Your task to perform on an android device: Open privacy settings Image 0: 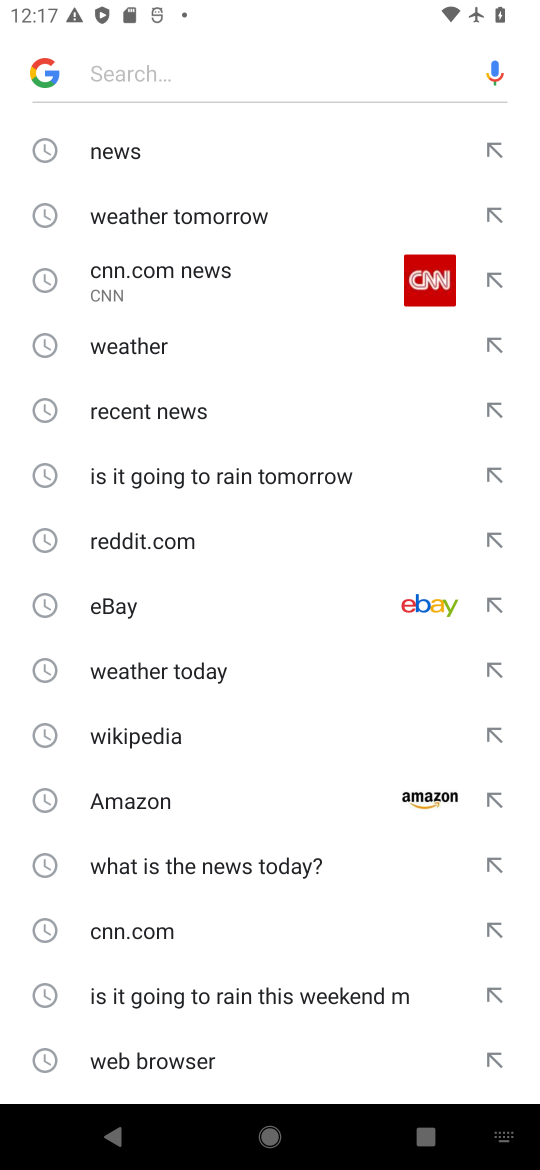
Step 0: press home button
Your task to perform on an android device: Open privacy settings Image 1: 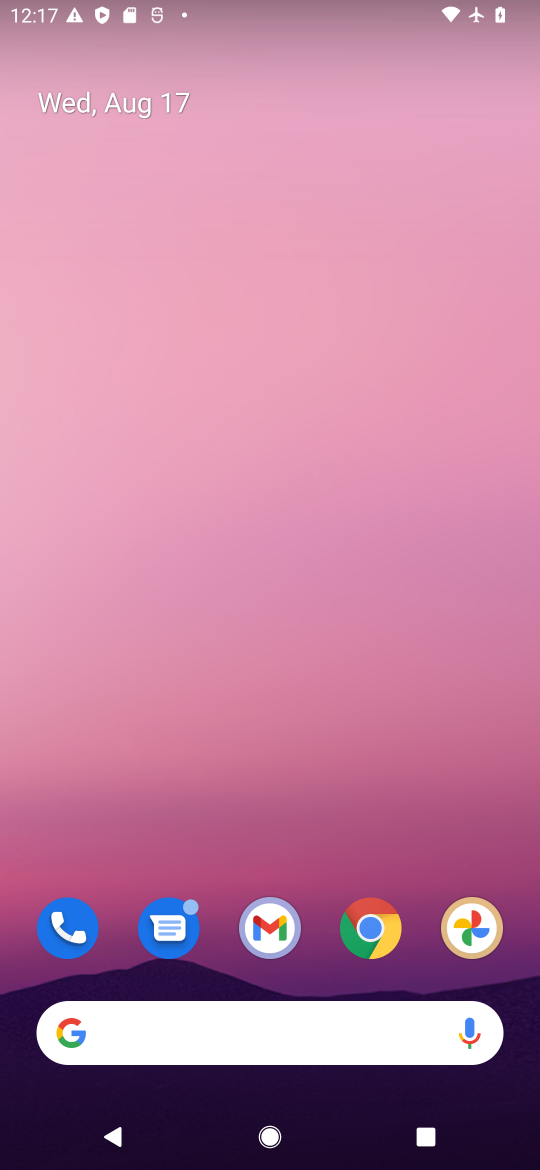
Step 1: drag from (251, 843) to (307, 132)
Your task to perform on an android device: Open privacy settings Image 2: 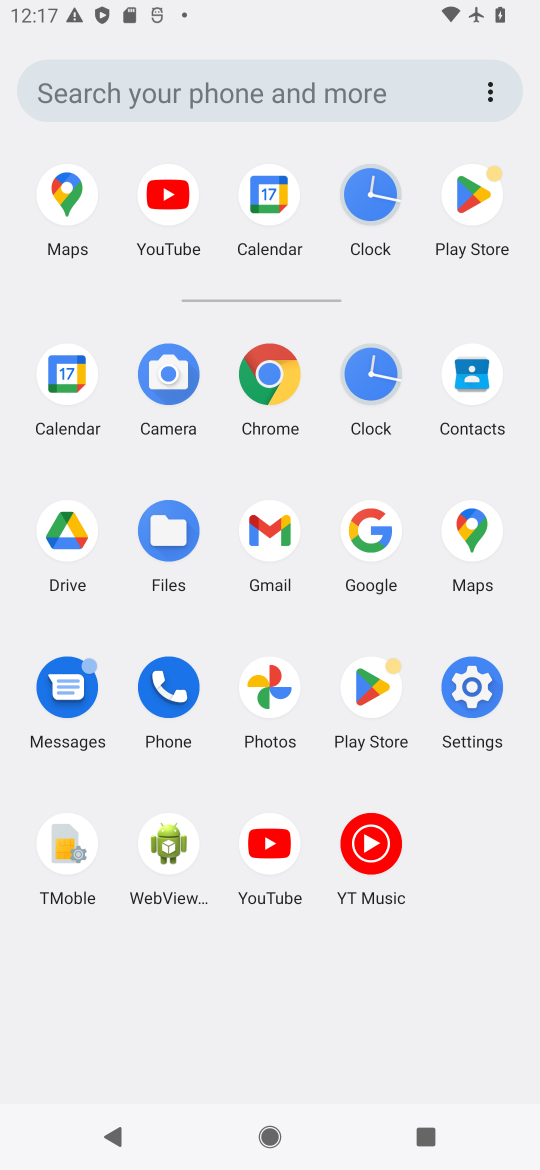
Step 2: click (474, 700)
Your task to perform on an android device: Open privacy settings Image 3: 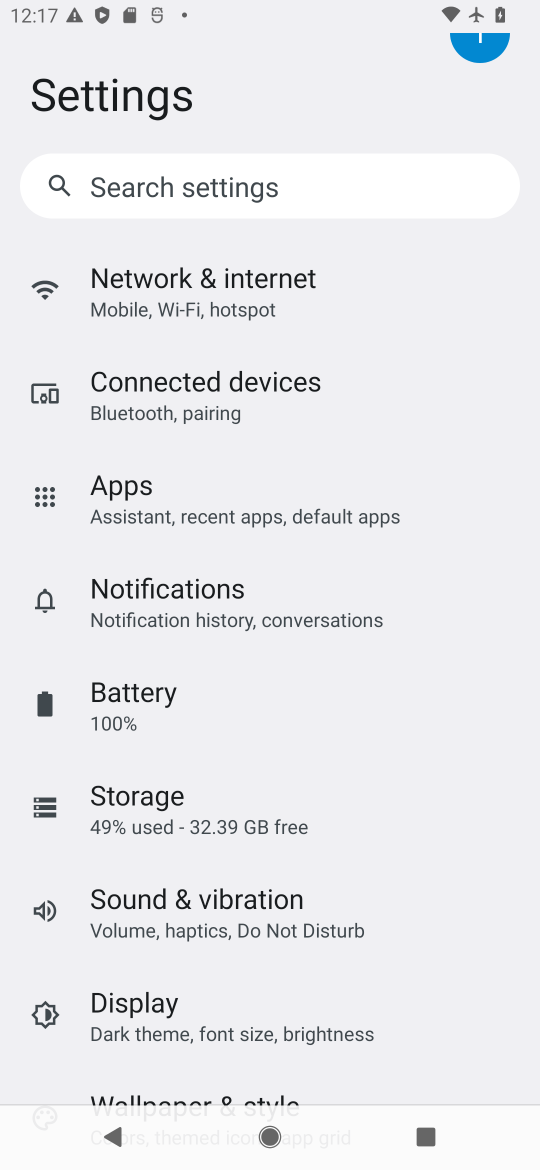
Step 3: drag from (249, 965) to (255, 428)
Your task to perform on an android device: Open privacy settings Image 4: 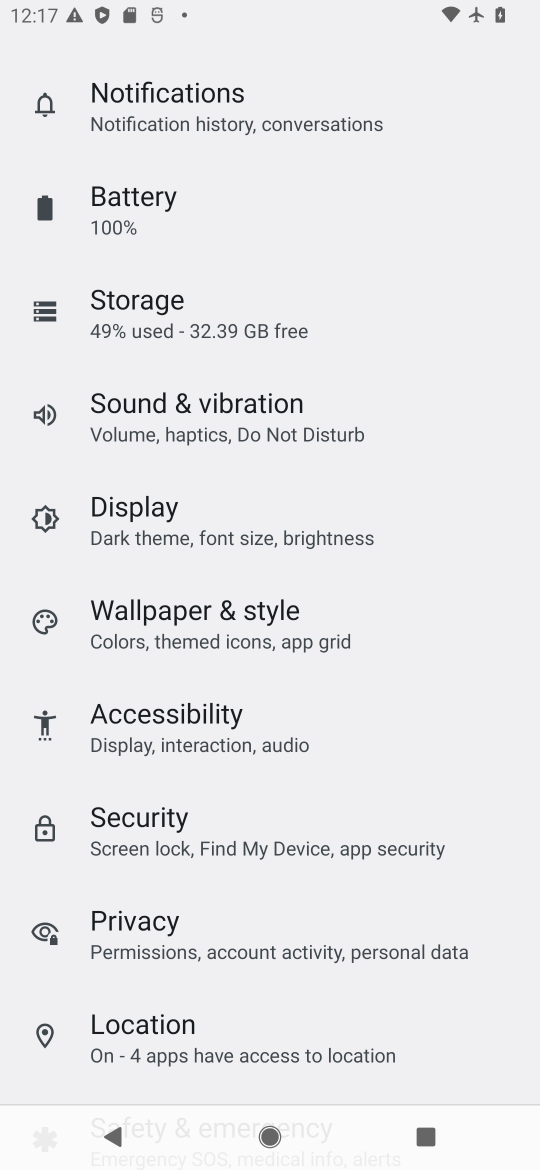
Step 4: click (198, 916)
Your task to perform on an android device: Open privacy settings Image 5: 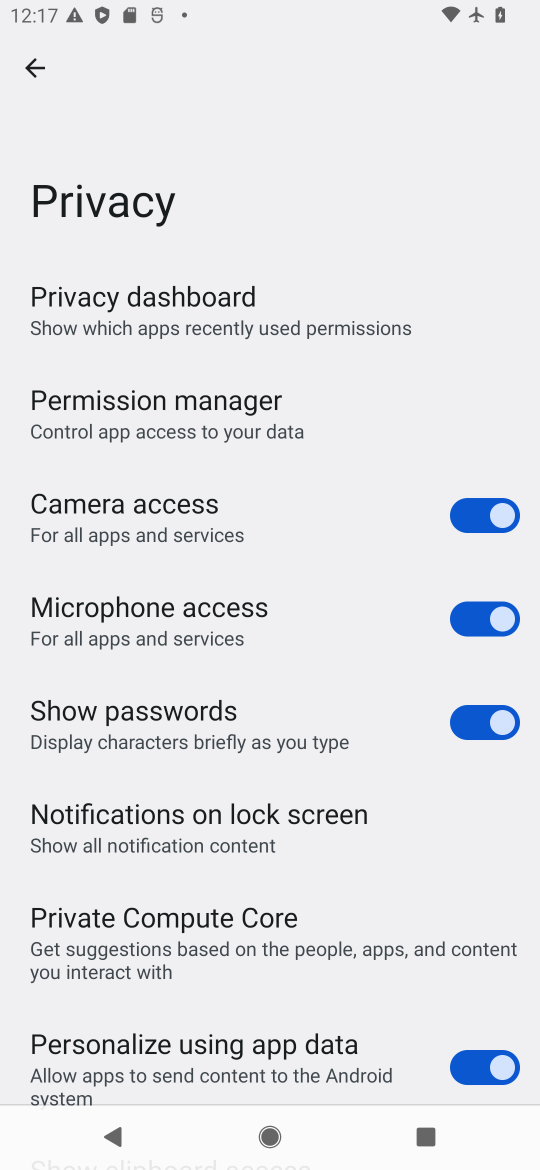
Step 5: task complete